Your task to perform on an android device: show emergency info Image 0: 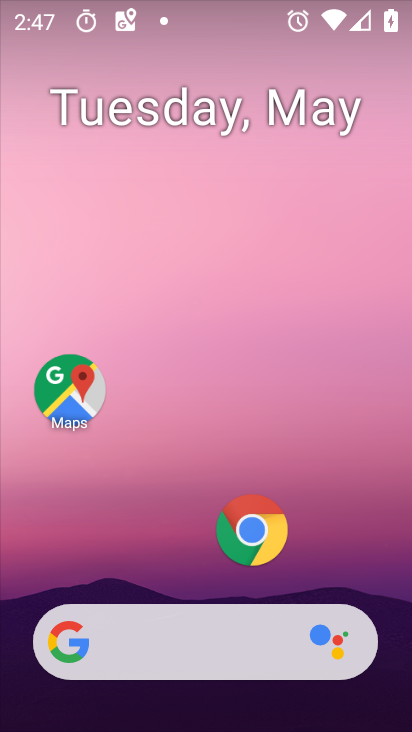
Step 0: drag from (207, 575) to (204, 13)
Your task to perform on an android device: show emergency info Image 1: 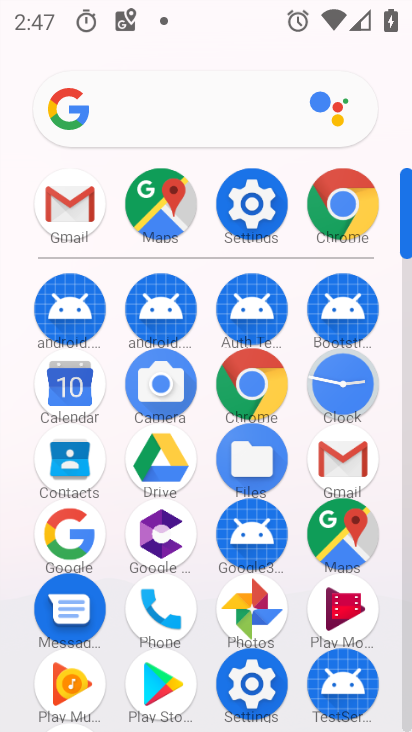
Step 1: click (253, 214)
Your task to perform on an android device: show emergency info Image 2: 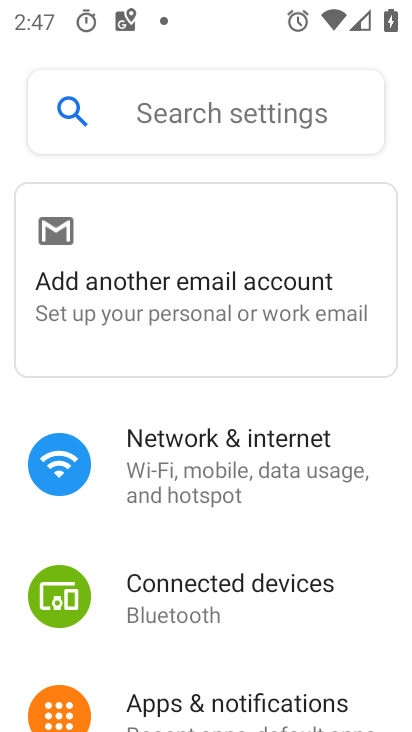
Step 2: drag from (281, 555) to (183, 44)
Your task to perform on an android device: show emergency info Image 3: 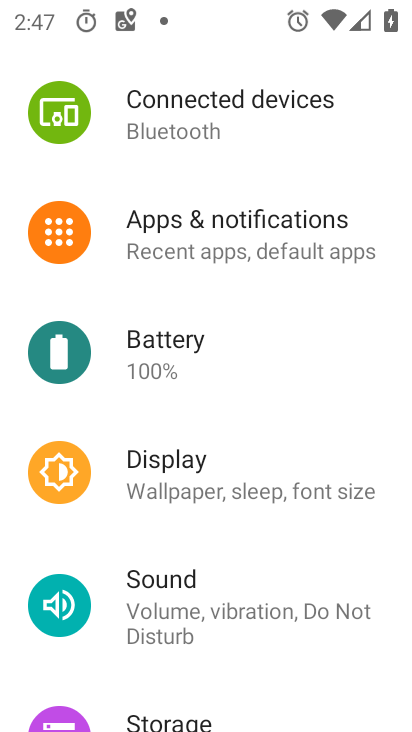
Step 3: drag from (249, 612) to (186, 75)
Your task to perform on an android device: show emergency info Image 4: 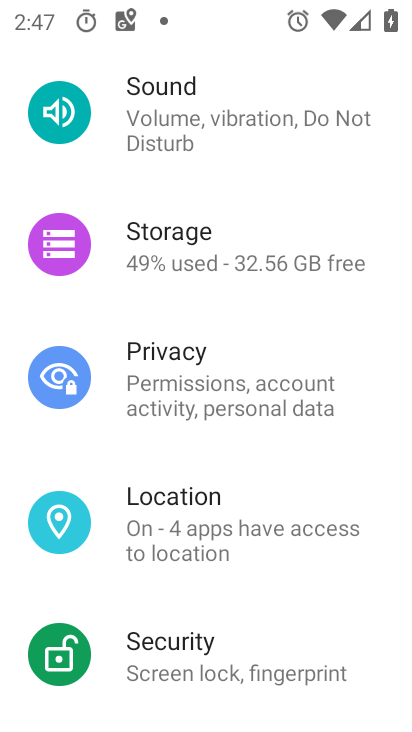
Step 4: drag from (121, 498) to (101, 2)
Your task to perform on an android device: show emergency info Image 5: 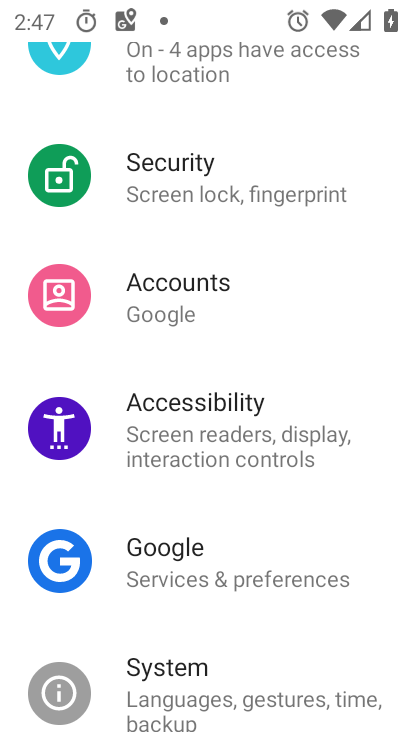
Step 5: drag from (187, 682) to (112, 83)
Your task to perform on an android device: show emergency info Image 6: 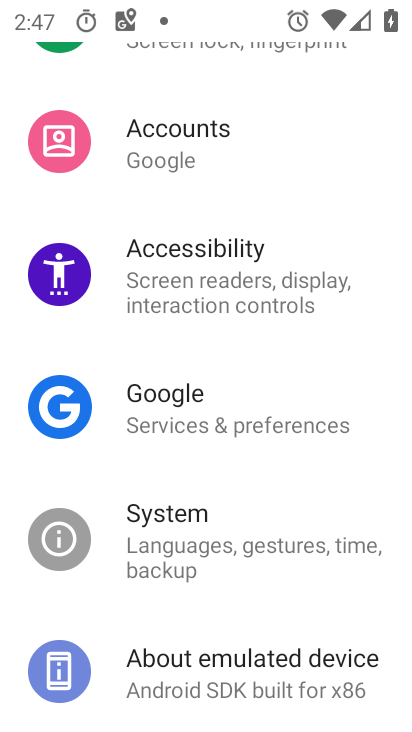
Step 6: click (183, 685)
Your task to perform on an android device: show emergency info Image 7: 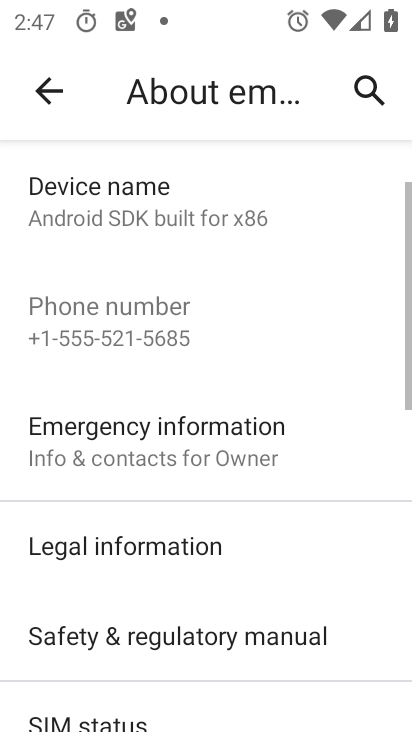
Step 7: click (157, 439)
Your task to perform on an android device: show emergency info Image 8: 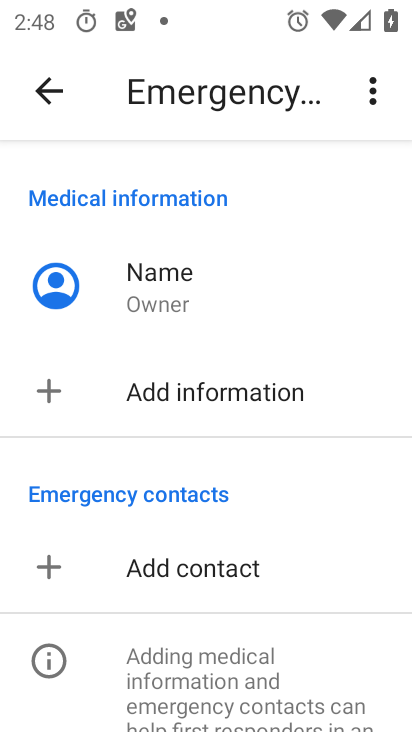
Step 8: task complete